Your task to perform on an android device: snooze an email in the gmail app Image 0: 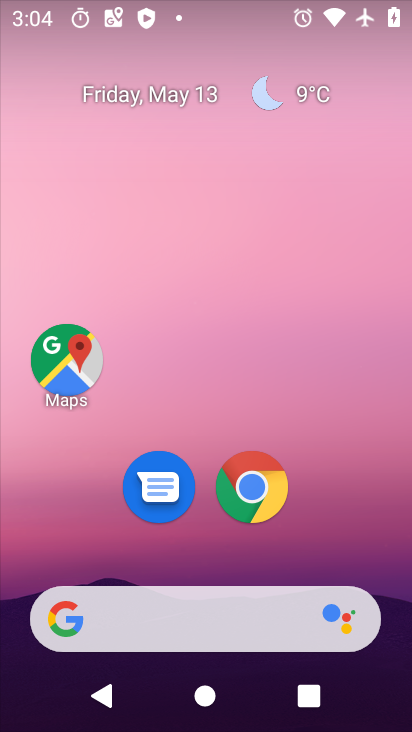
Step 0: drag from (206, 558) to (252, 84)
Your task to perform on an android device: snooze an email in the gmail app Image 1: 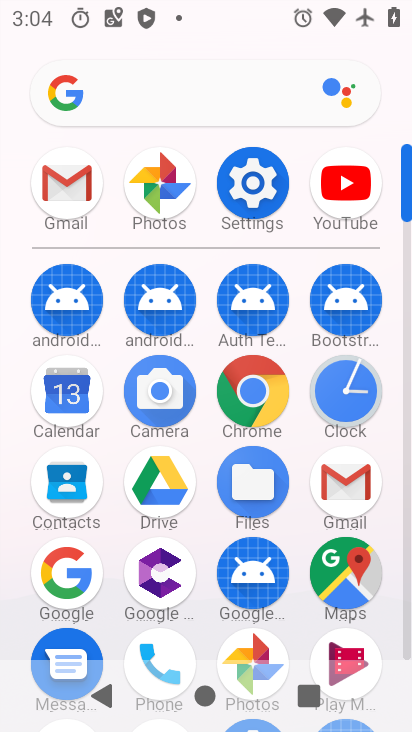
Step 1: click (71, 212)
Your task to perform on an android device: snooze an email in the gmail app Image 2: 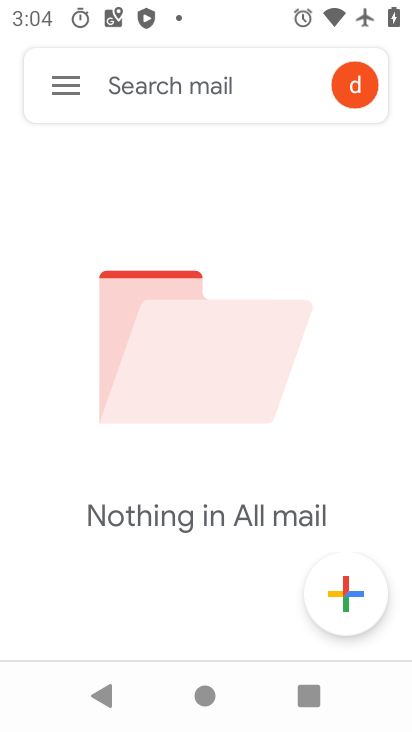
Step 2: click (71, 90)
Your task to perform on an android device: snooze an email in the gmail app Image 3: 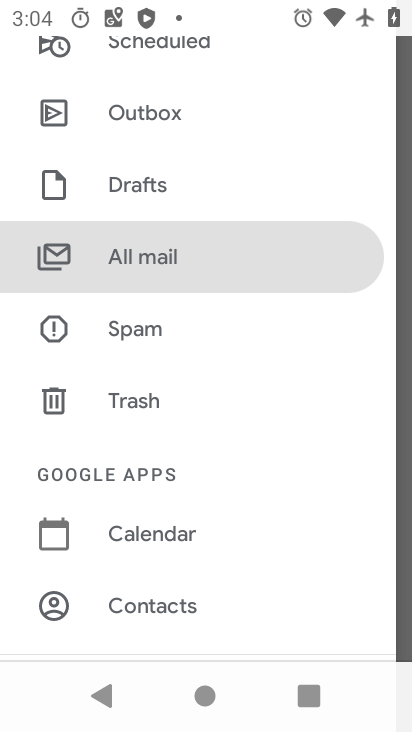
Step 3: drag from (201, 497) to (254, 557)
Your task to perform on an android device: snooze an email in the gmail app Image 4: 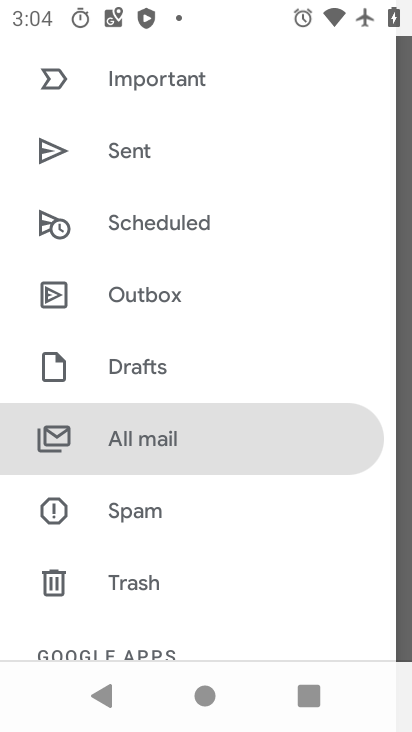
Step 4: click (209, 425)
Your task to perform on an android device: snooze an email in the gmail app Image 5: 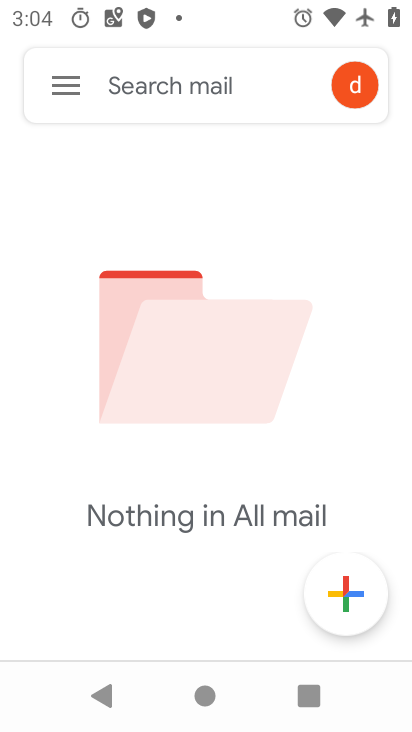
Step 5: task complete